Your task to perform on an android device: manage bookmarks in the chrome app Image 0: 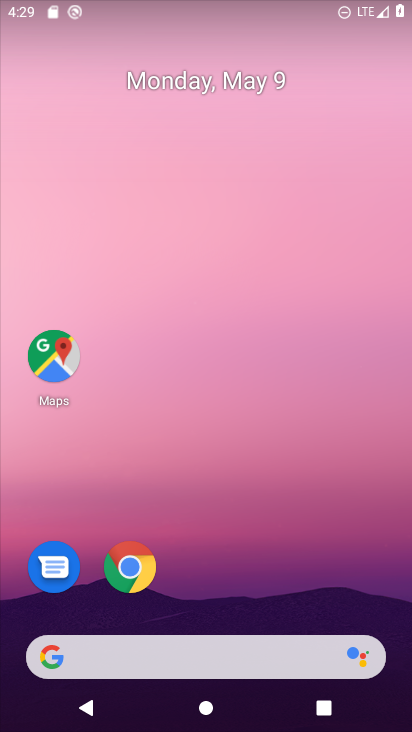
Step 0: click (140, 559)
Your task to perform on an android device: manage bookmarks in the chrome app Image 1: 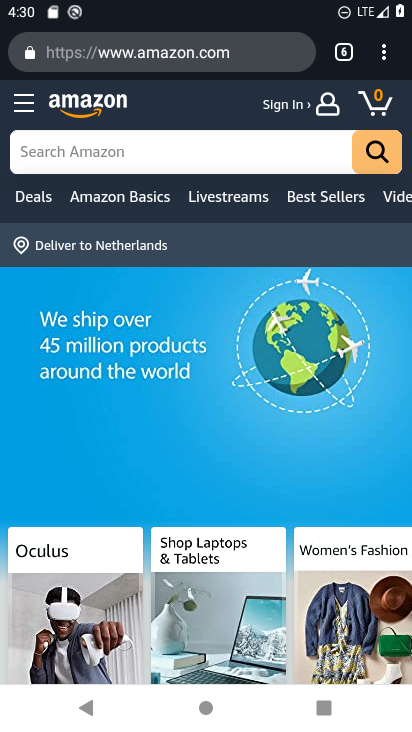
Step 1: click (384, 50)
Your task to perform on an android device: manage bookmarks in the chrome app Image 2: 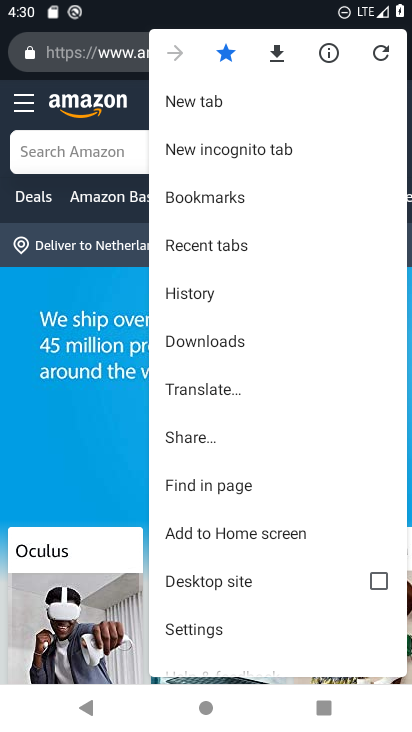
Step 2: click (230, 197)
Your task to perform on an android device: manage bookmarks in the chrome app Image 3: 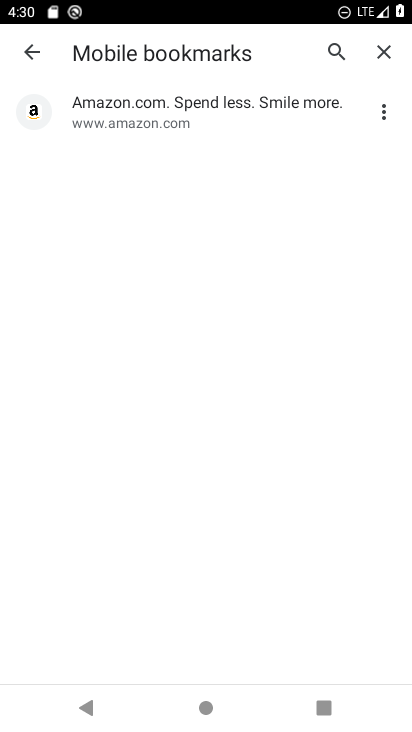
Step 3: click (385, 107)
Your task to perform on an android device: manage bookmarks in the chrome app Image 4: 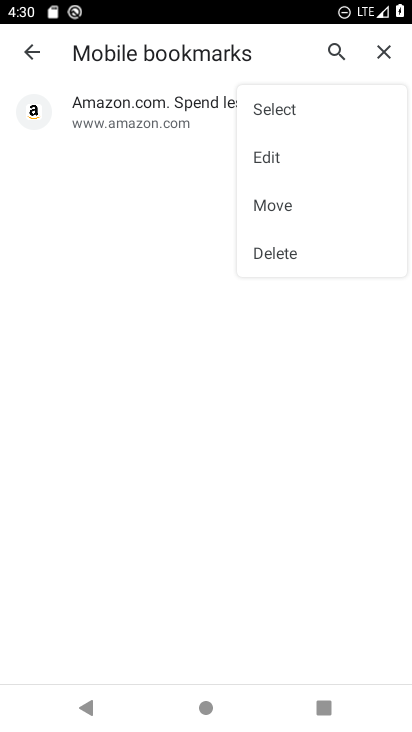
Step 4: click (276, 201)
Your task to perform on an android device: manage bookmarks in the chrome app Image 5: 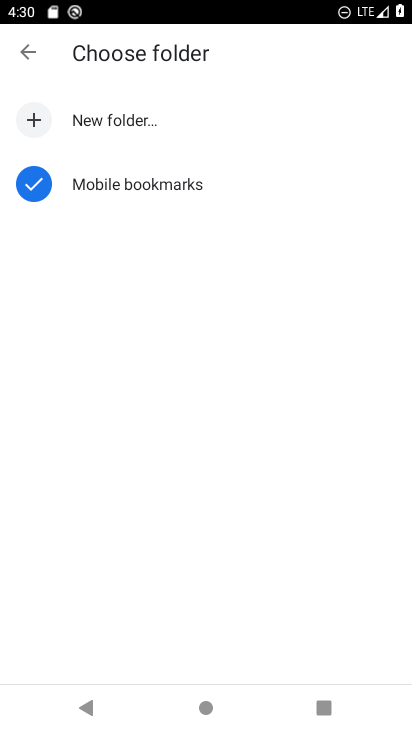
Step 5: click (98, 124)
Your task to perform on an android device: manage bookmarks in the chrome app Image 6: 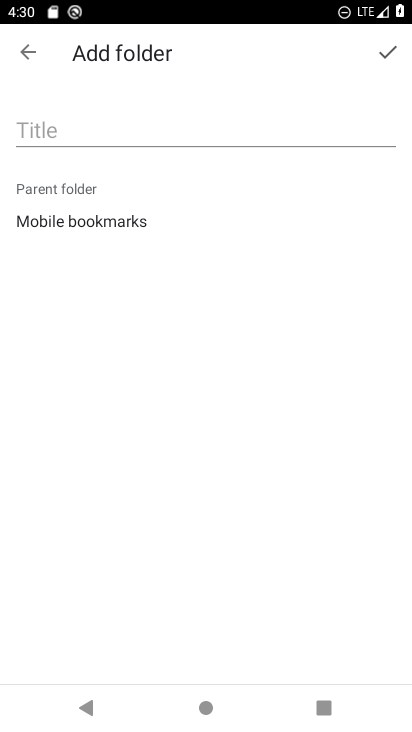
Step 6: click (108, 130)
Your task to perform on an android device: manage bookmarks in the chrome app Image 7: 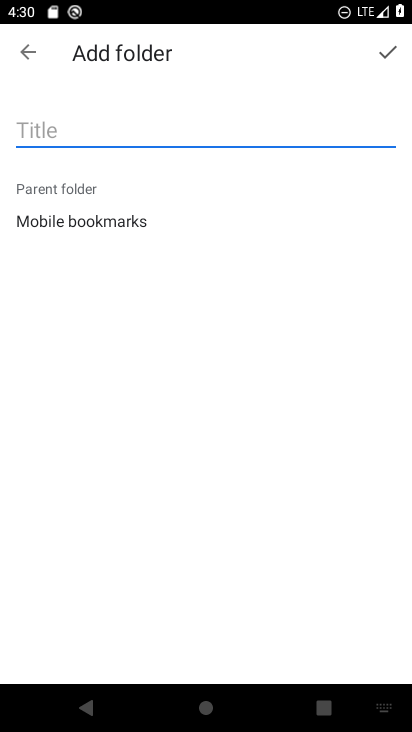
Step 7: type "vhjfhjv"
Your task to perform on an android device: manage bookmarks in the chrome app Image 8: 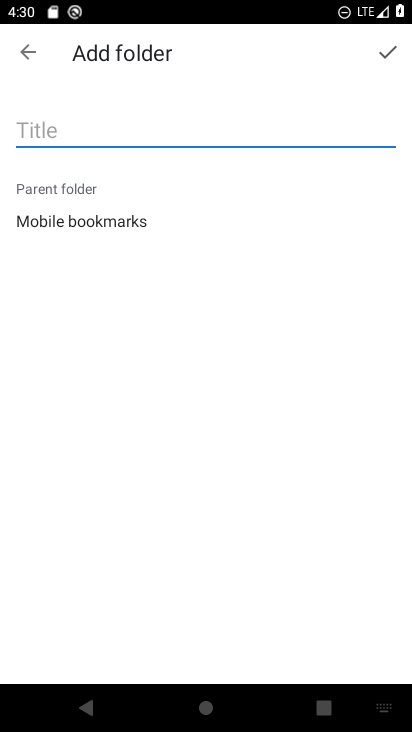
Step 8: click (391, 48)
Your task to perform on an android device: manage bookmarks in the chrome app Image 9: 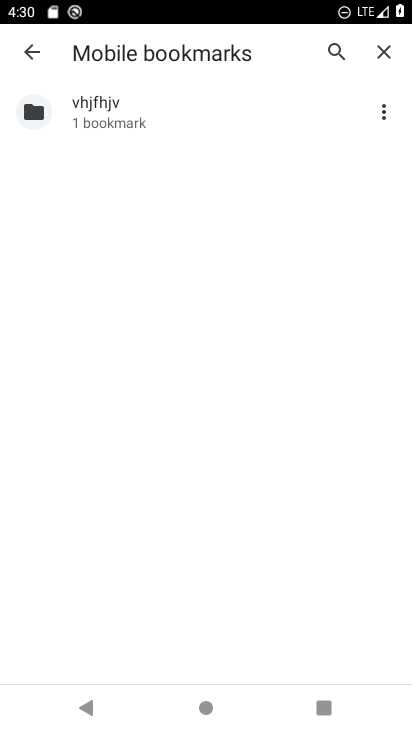
Step 9: task complete